Your task to perform on an android device: see sites visited before in the chrome app Image 0: 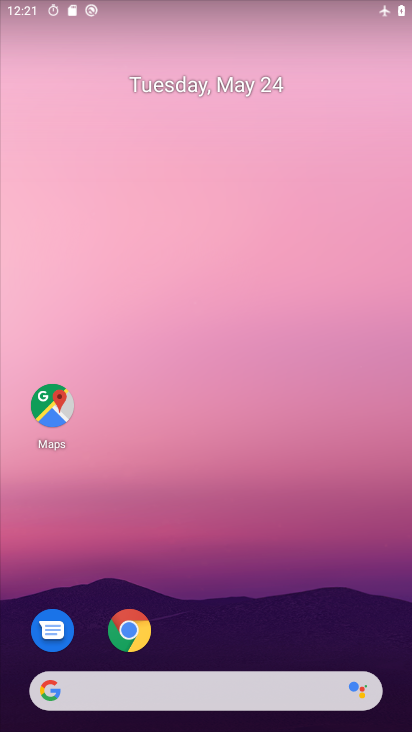
Step 0: drag from (199, 640) to (178, 9)
Your task to perform on an android device: see sites visited before in the chrome app Image 1: 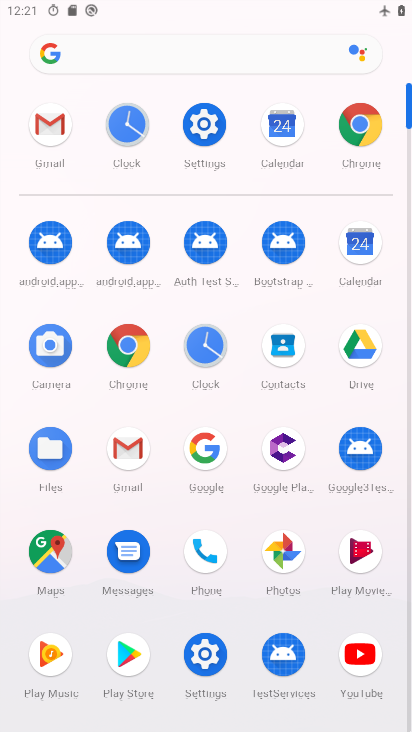
Step 1: click (126, 361)
Your task to perform on an android device: see sites visited before in the chrome app Image 2: 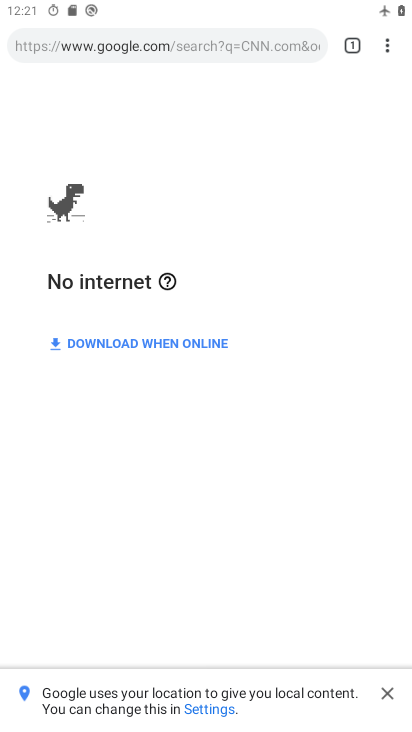
Step 2: click (387, 47)
Your task to perform on an android device: see sites visited before in the chrome app Image 3: 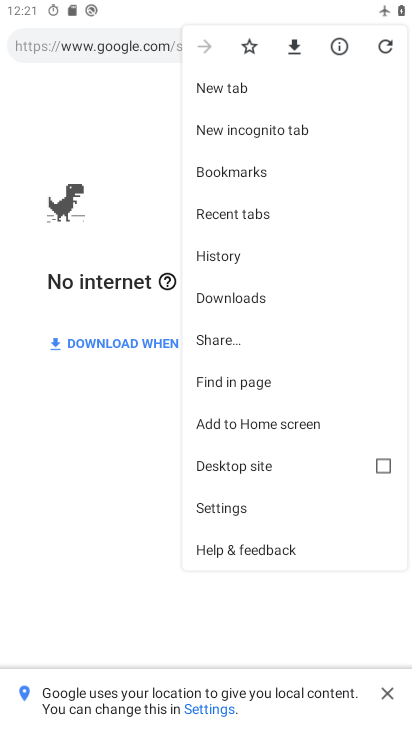
Step 3: click (220, 260)
Your task to perform on an android device: see sites visited before in the chrome app Image 4: 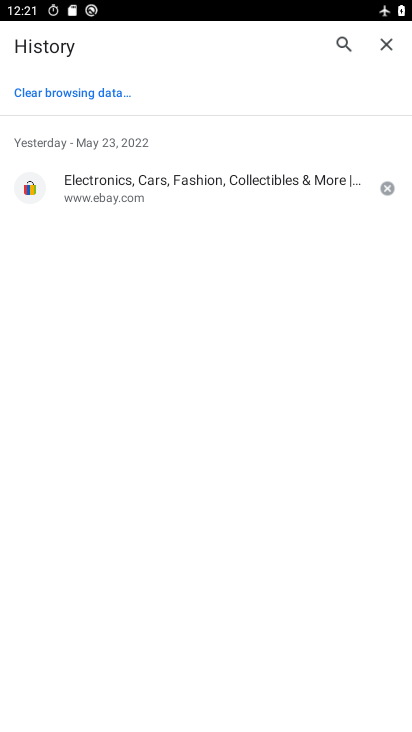
Step 4: task complete